Your task to perform on an android device: create a new album in the google photos Image 0: 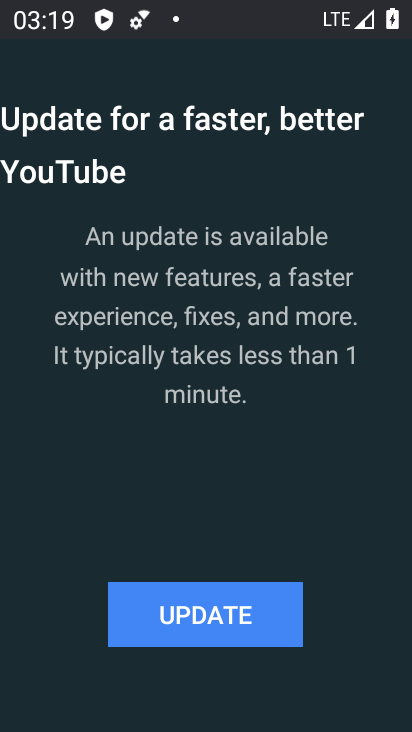
Step 0: click (250, 606)
Your task to perform on an android device: create a new album in the google photos Image 1: 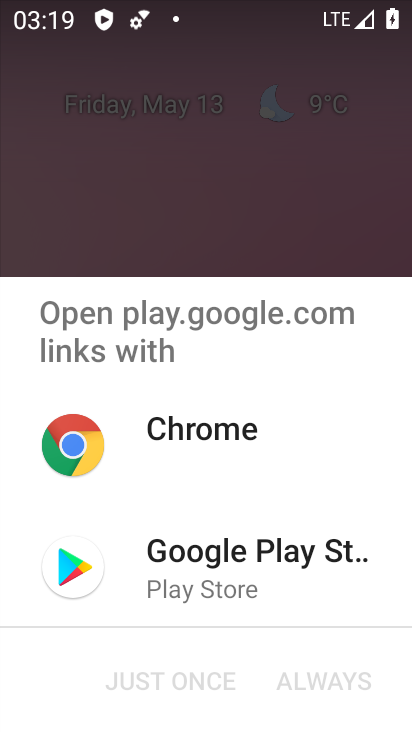
Step 1: press back button
Your task to perform on an android device: create a new album in the google photos Image 2: 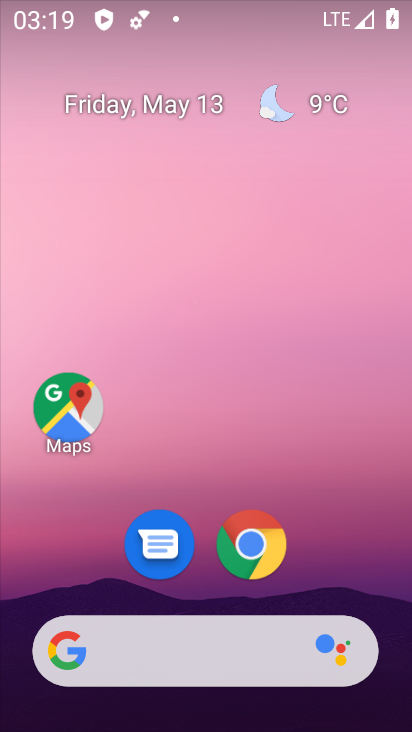
Step 2: drag from (361, 527) to (261, 53)
Your task to perform on an android device: create a new album in the google photos Image 3: 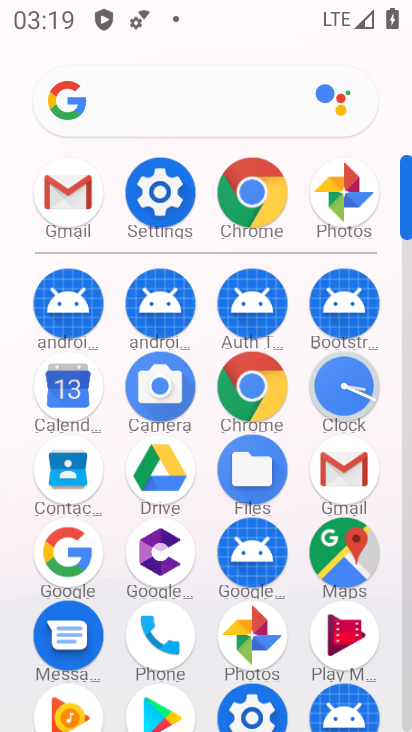
Step 3: drag from (7, 498) to (16, 251)
Your task to perform on an android device: create a new album in the google photos Image 4: 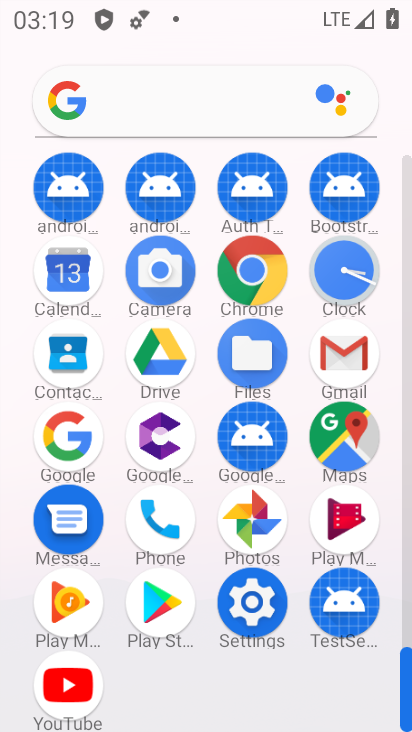
Step 4: drag from (14, 490) to (14, 246)
Your task to perform on an android device: create a new album in the google photos Image 5: 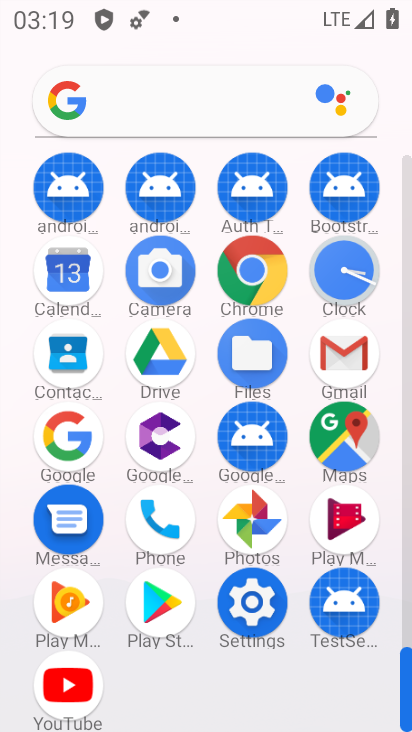
Step 5: click (250, 519)
Your task to perform on an android device: create a new album in the google photos Image 6: 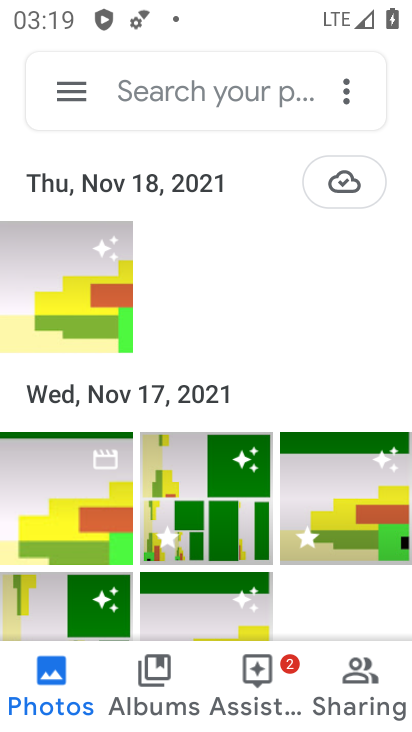
Step 6: drag from (65, 300) to (154, 158)
Your task to perform on an android device: create a new album in the google photos Image 7: 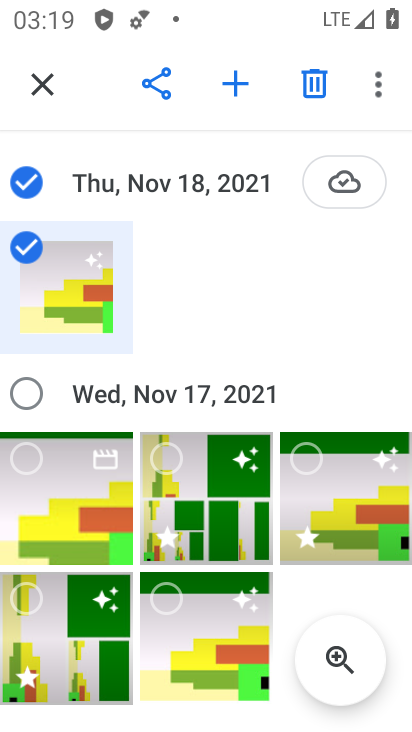
Step 7: click (209, 98)
Your task to perform on an android device: create a new album in the google photos Image 8: 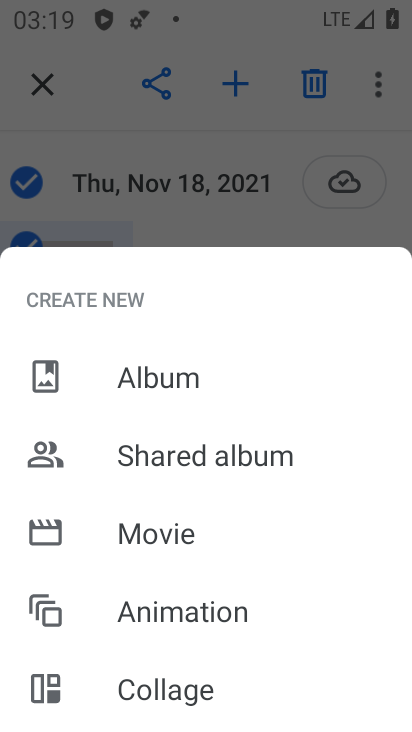
Step 8: click (184, 369)
Your task to perform on an android device: create a new album in the google photos Image 9: 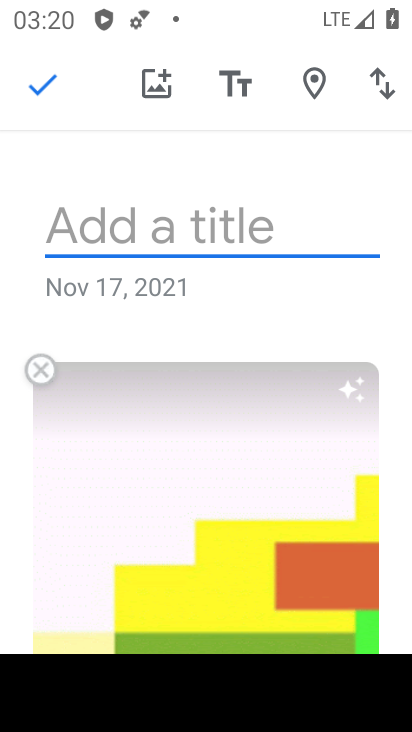
Step 9: type "Sdfg"
Your task to perform on an android device: create a new album in the google photos Image 10: 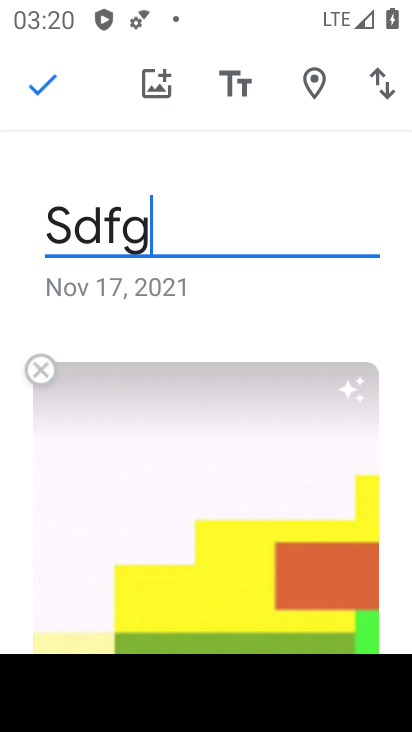
Step 10: type ""
Your task to perform on an android device: create a new album in the google photos Image 11: 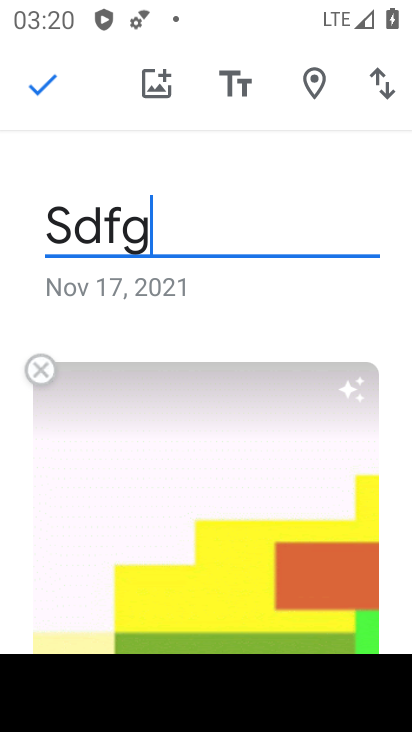
Step 11: click (44, 85)
Your task to perform on an android device: create a new album in the google photos Image 12: 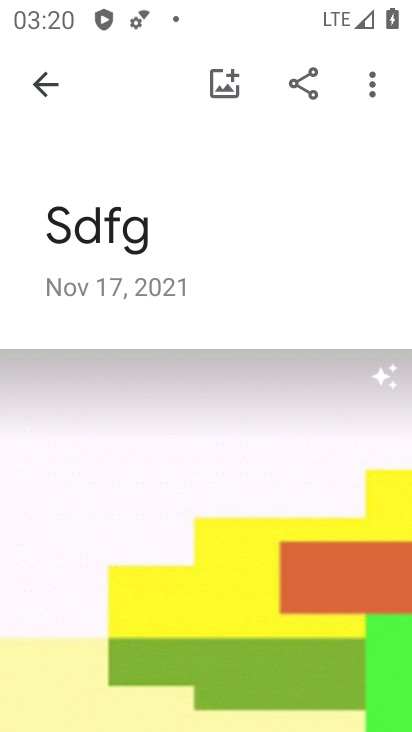
Step 12: task complete